Your task to perform on an android device: open chrome privacy settings Image 0: 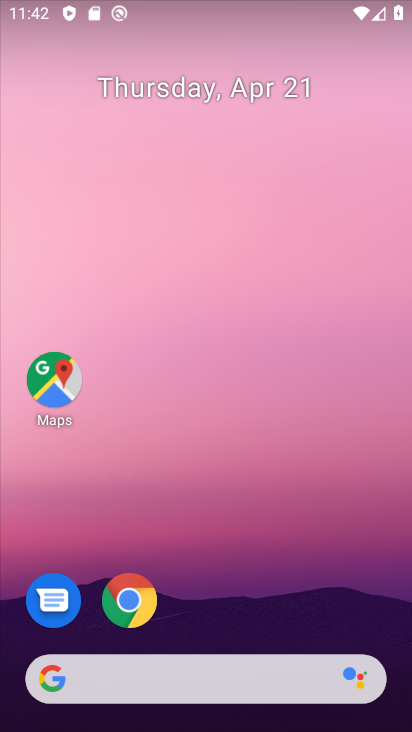
Step 0: click (124, 606)
Your task to perform on an android device: open chrome privacy settings Image 1: 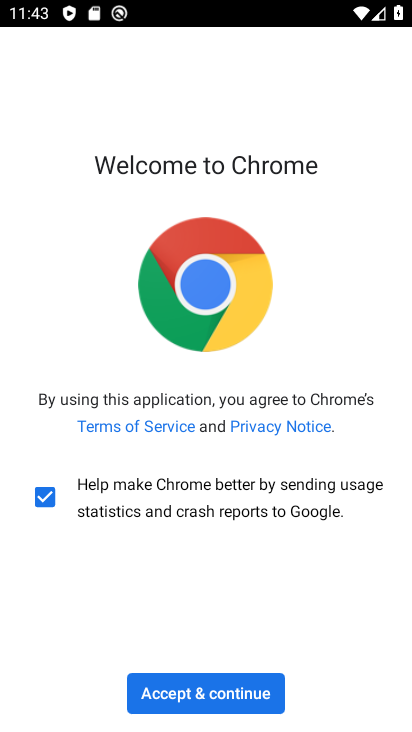
Step 1: click (208, 689)
Your task to perform on an android device: open chrome privacy settings Image 2: 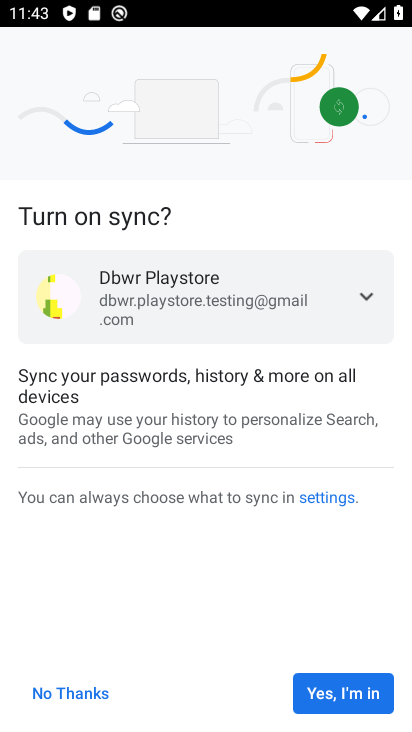
Step 2: click (352, 693)
Your task to perform on an android device: open chrome privacy settings Image 3: 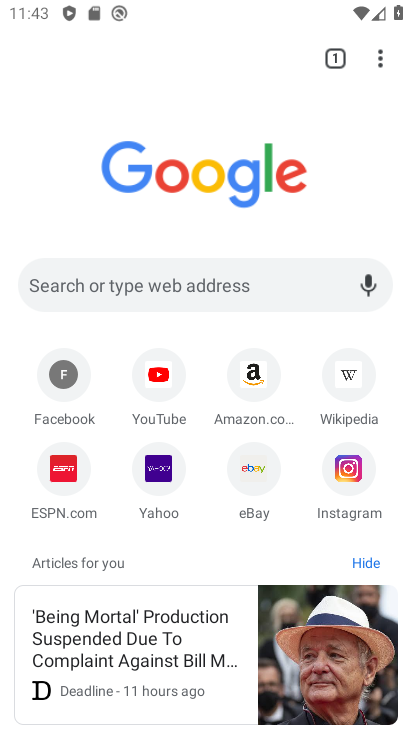
Step 3: click (378, 58)
Your task to perform on an android device: open chrome privacy settings Image 4: 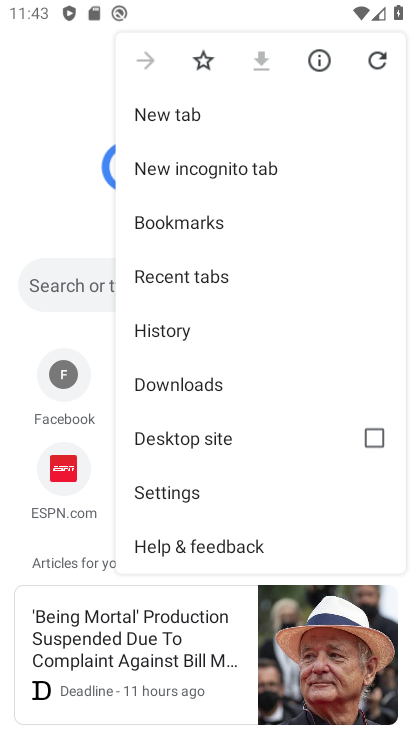
Step 4: click (169, 489)
Your task to perform on an android device: open chrome privacy settings Image 5: 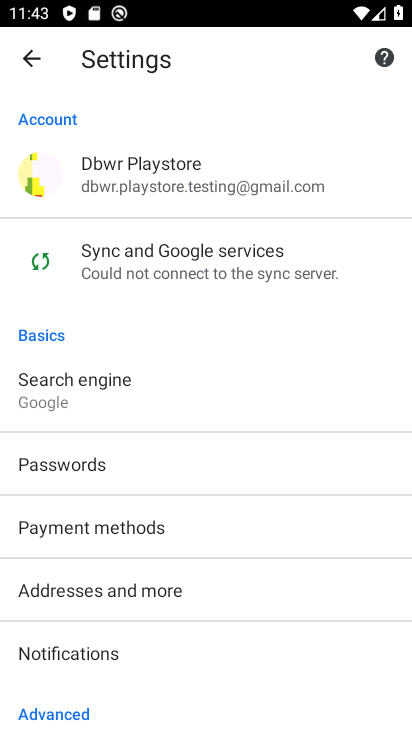
Step 5: drag from (246, 531) to (248, 306)
Your task to perform on an android device: open chrome privacy settings Image 6: 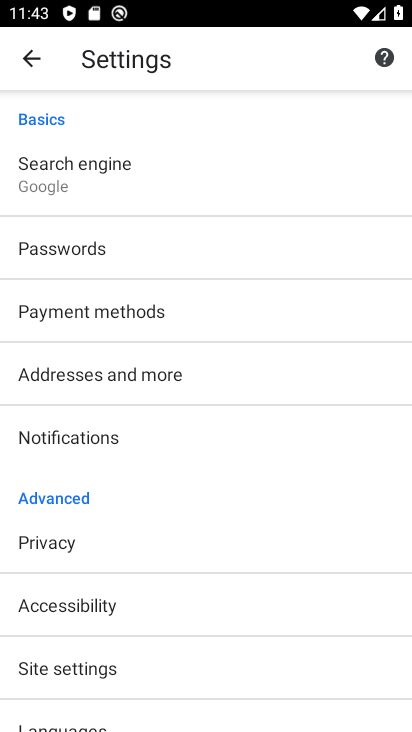
Step 6: click (49, 537)
Your task to perform on an android device: open chrome privacy settings Image 7: 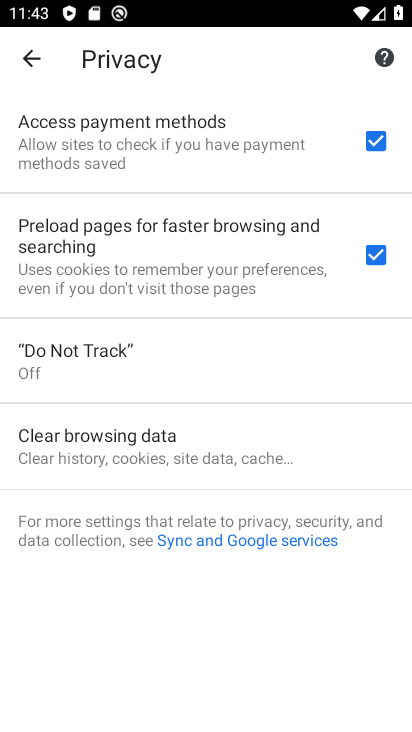
Step 7: task complete